Your task to perform on an android device: Do I have any events tomorrow? Image 0: 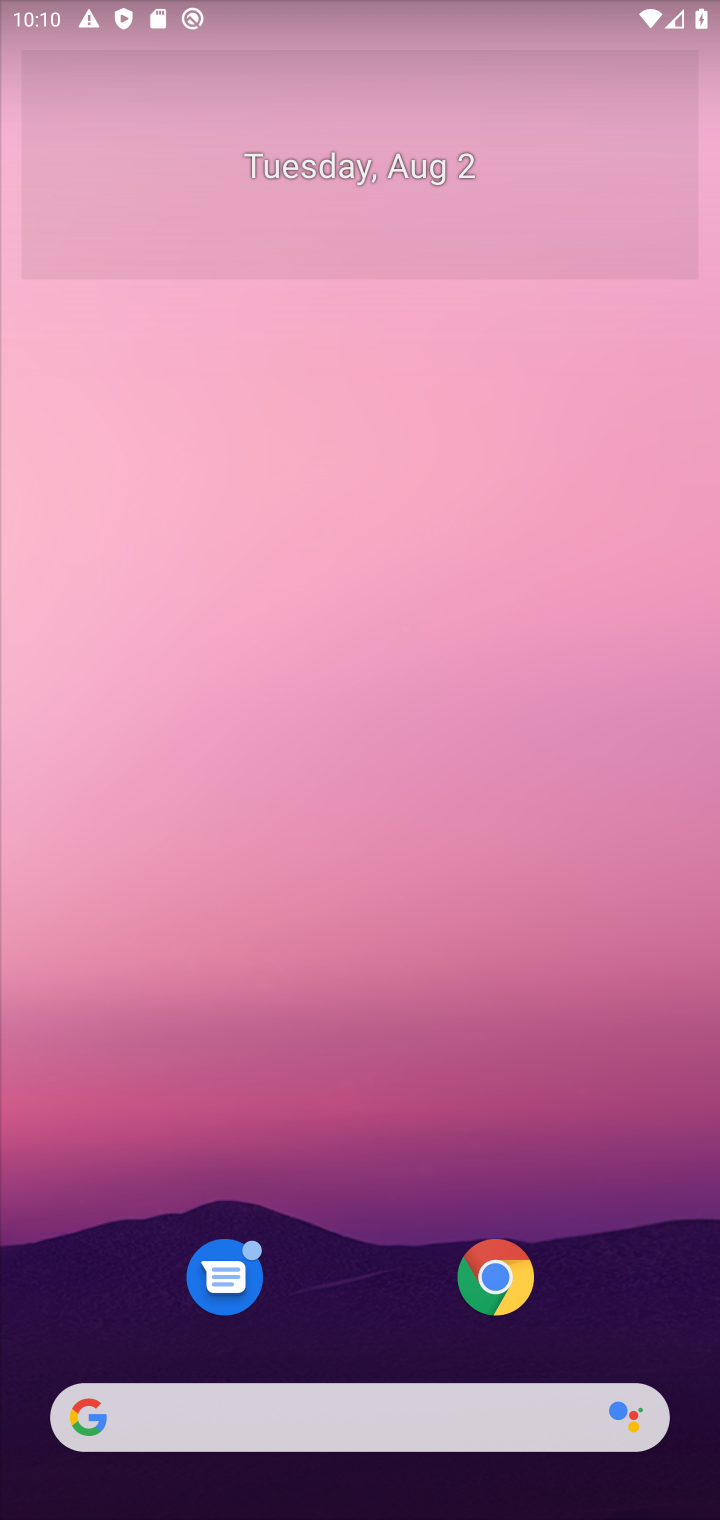
Step 0: press home button
Your task to perform on an android device: Do I have any events tomorrow? Image 1: 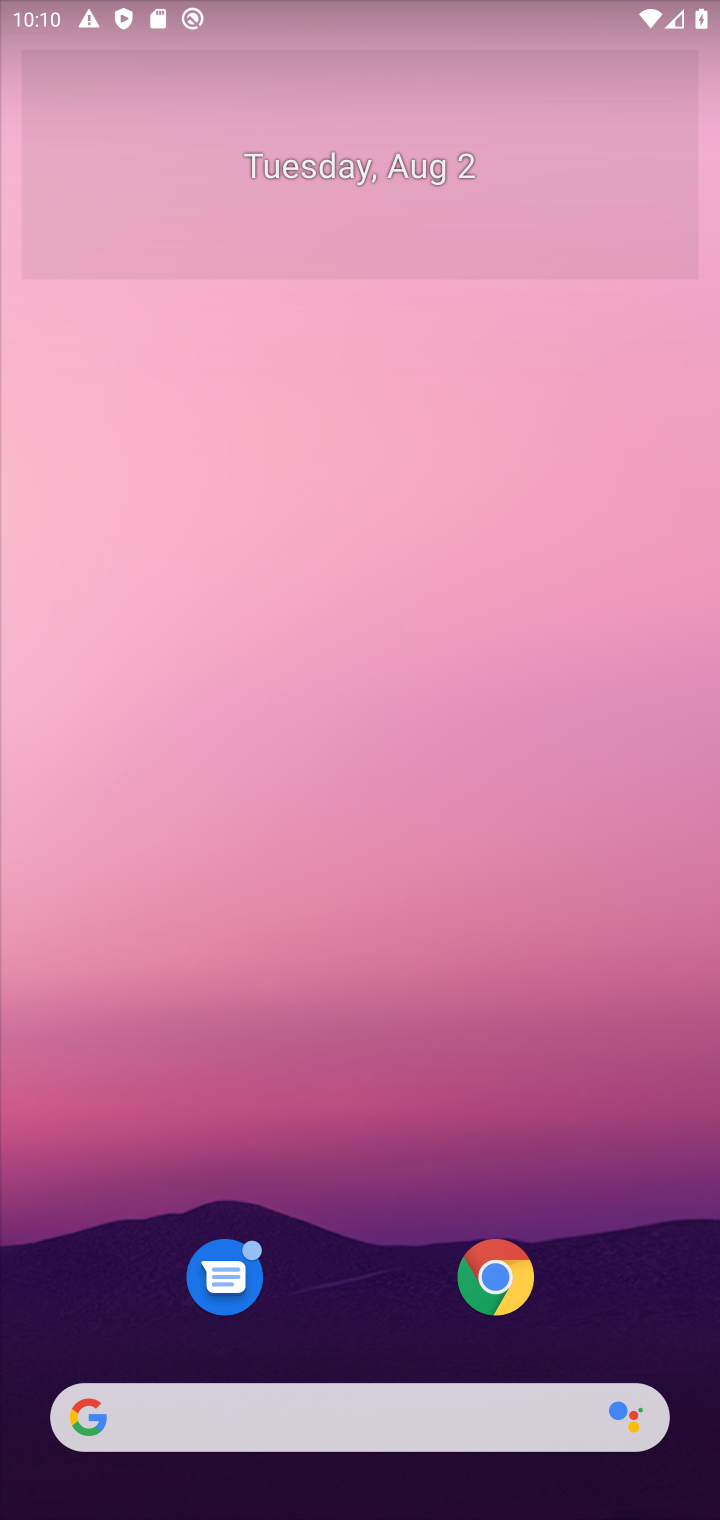
Step 1: drag from (441, 1084) to (506, 567)
Your task to perform on an android device: Do I have any events tomorrow? Image 2: 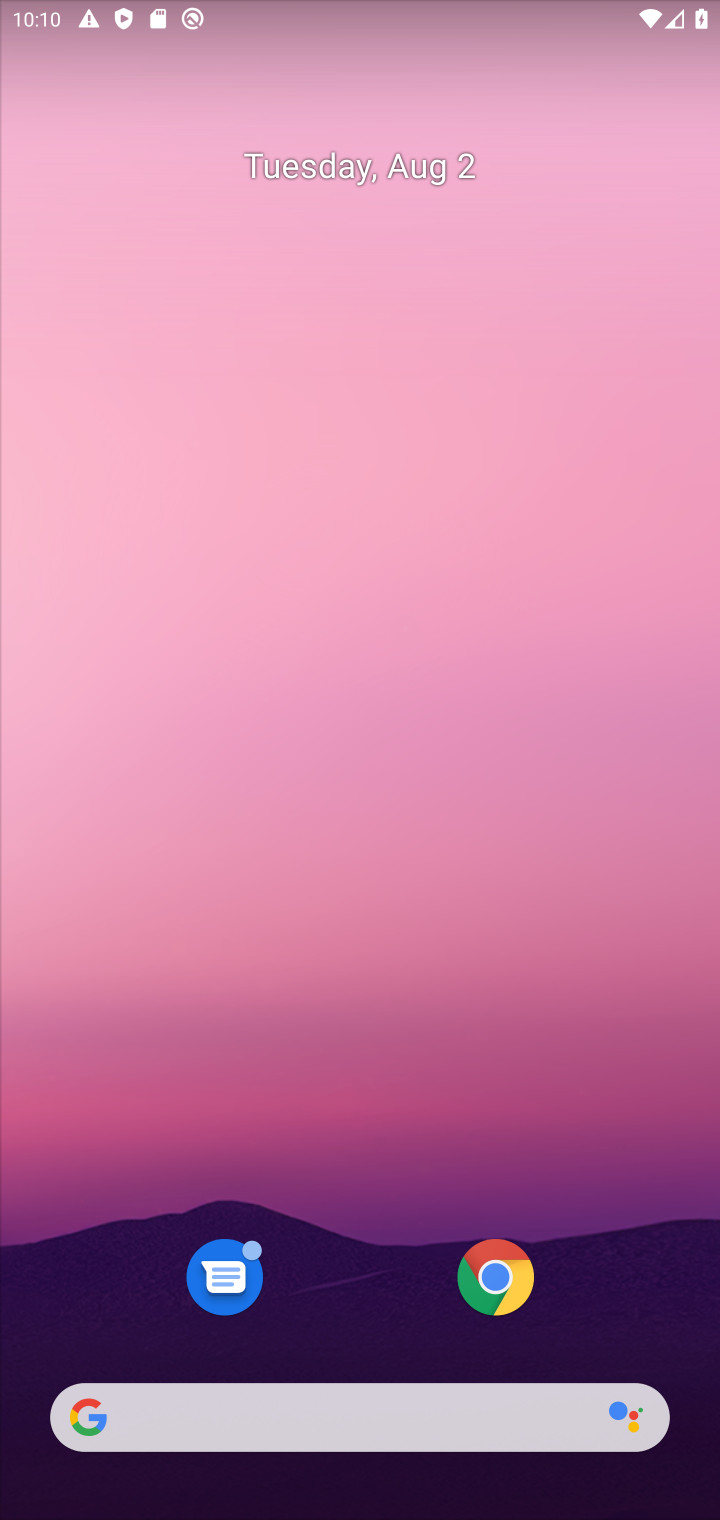
Step 2: drag from (495, 835) to (586, 407)
Your task to perform on an android device: Do I have any events tomorrow? Image 3: 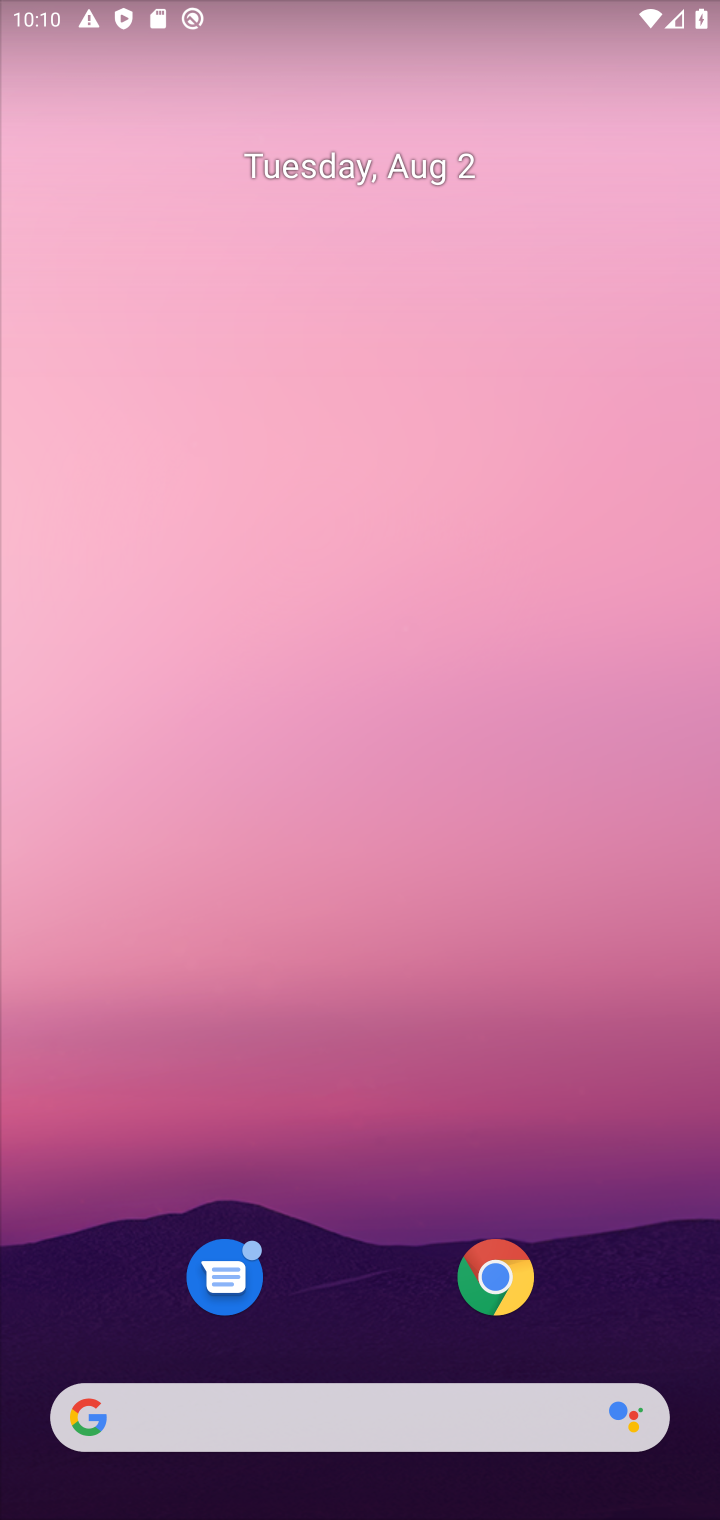
Step 3: drag from (368, 1123) to (370, 188)
Your task to perform on an android device: Do I have any events tomorrow? Image 4: 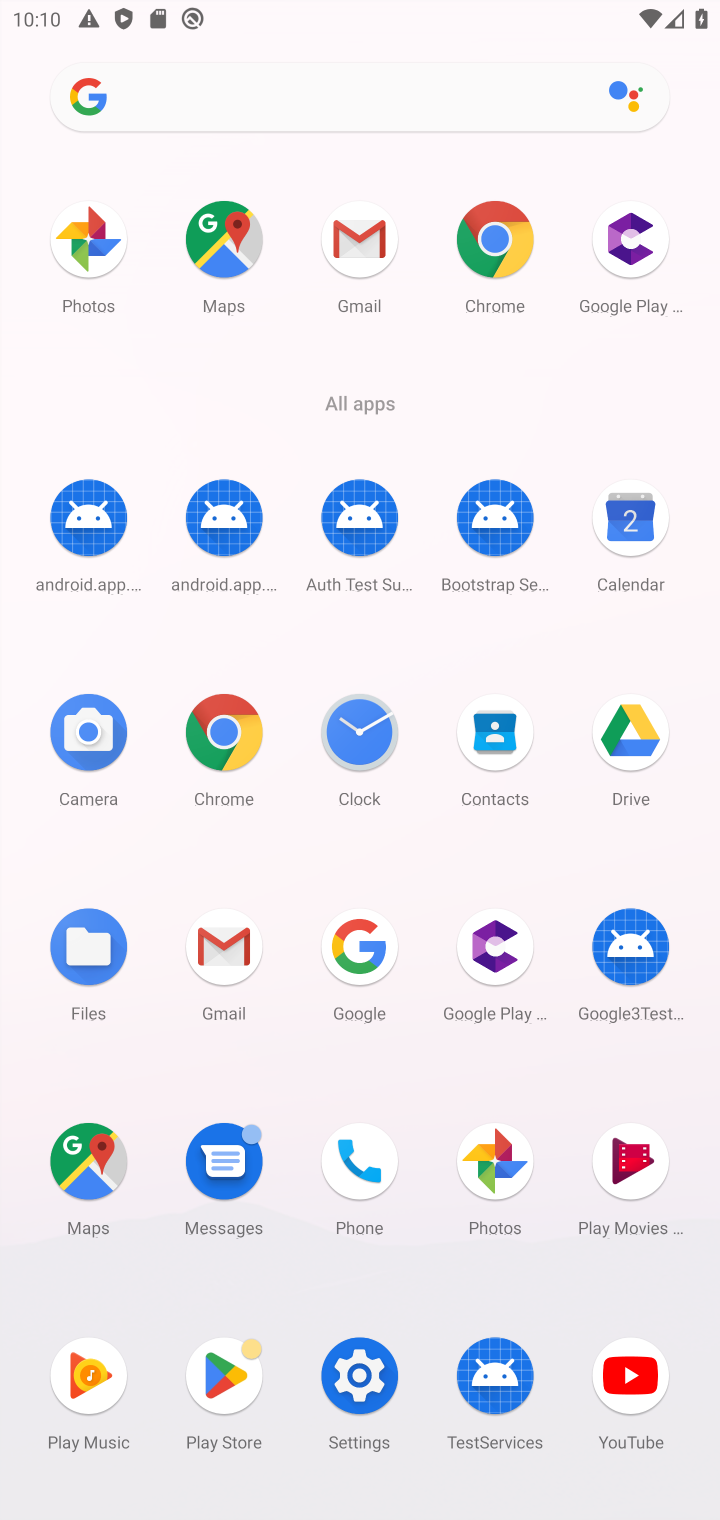
Step 4: click (629, 536)
Your task to perform on an android device: Do I have any events tomorrow? Image 5: 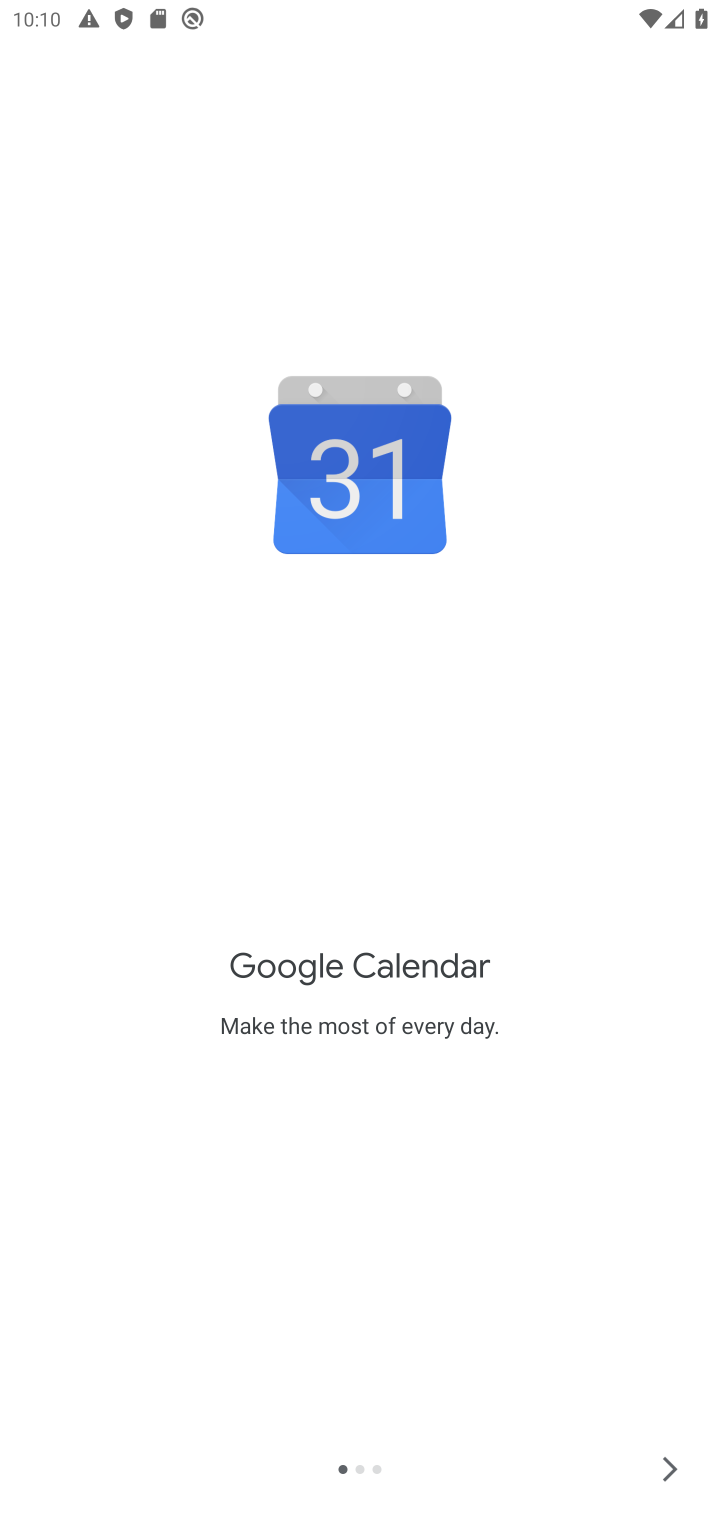
Step 5: click (671, 1469)
Your task to perform on an android device: Do I have any events tomorrow? Image 6: 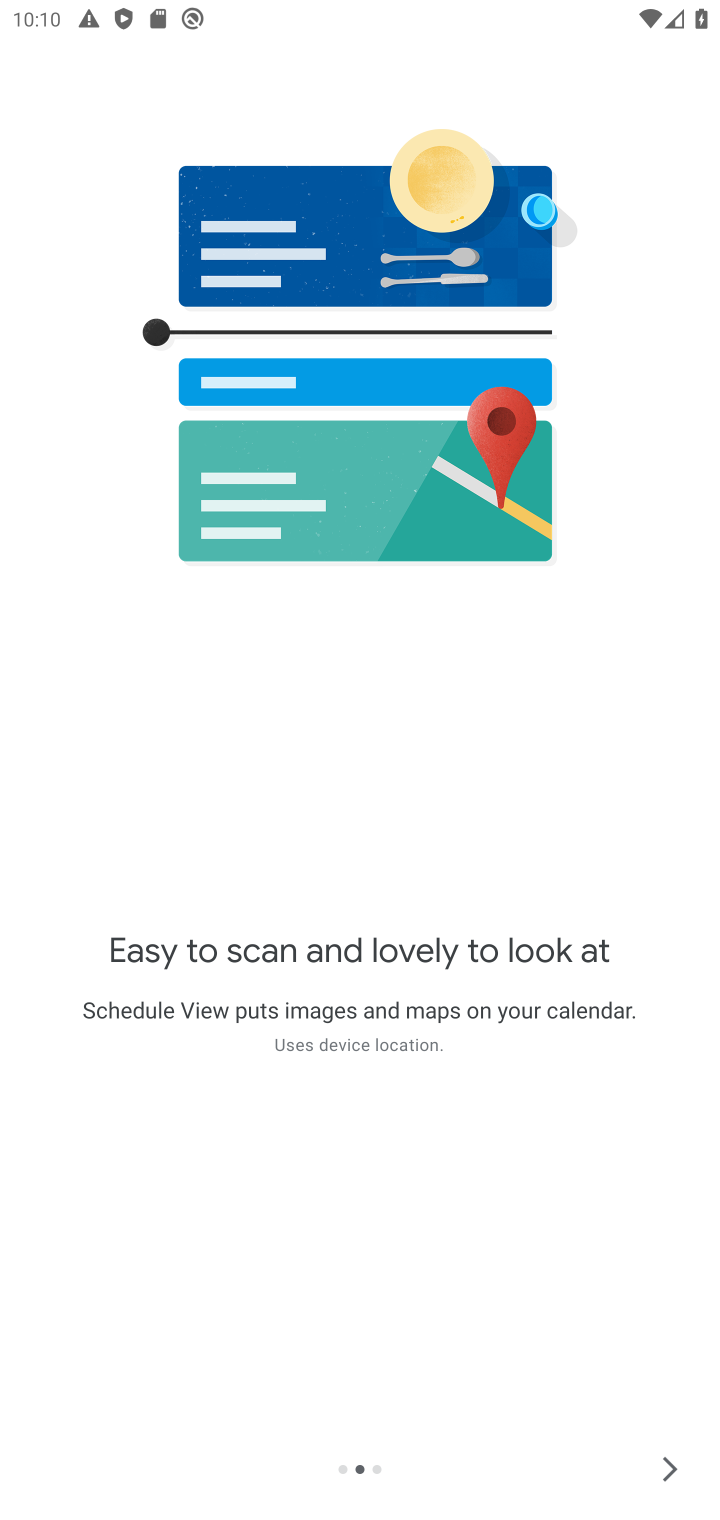
Step 6: click (671, 1469)
Your task to perform on an android device: Do I have any events tomorrow? Image 7: 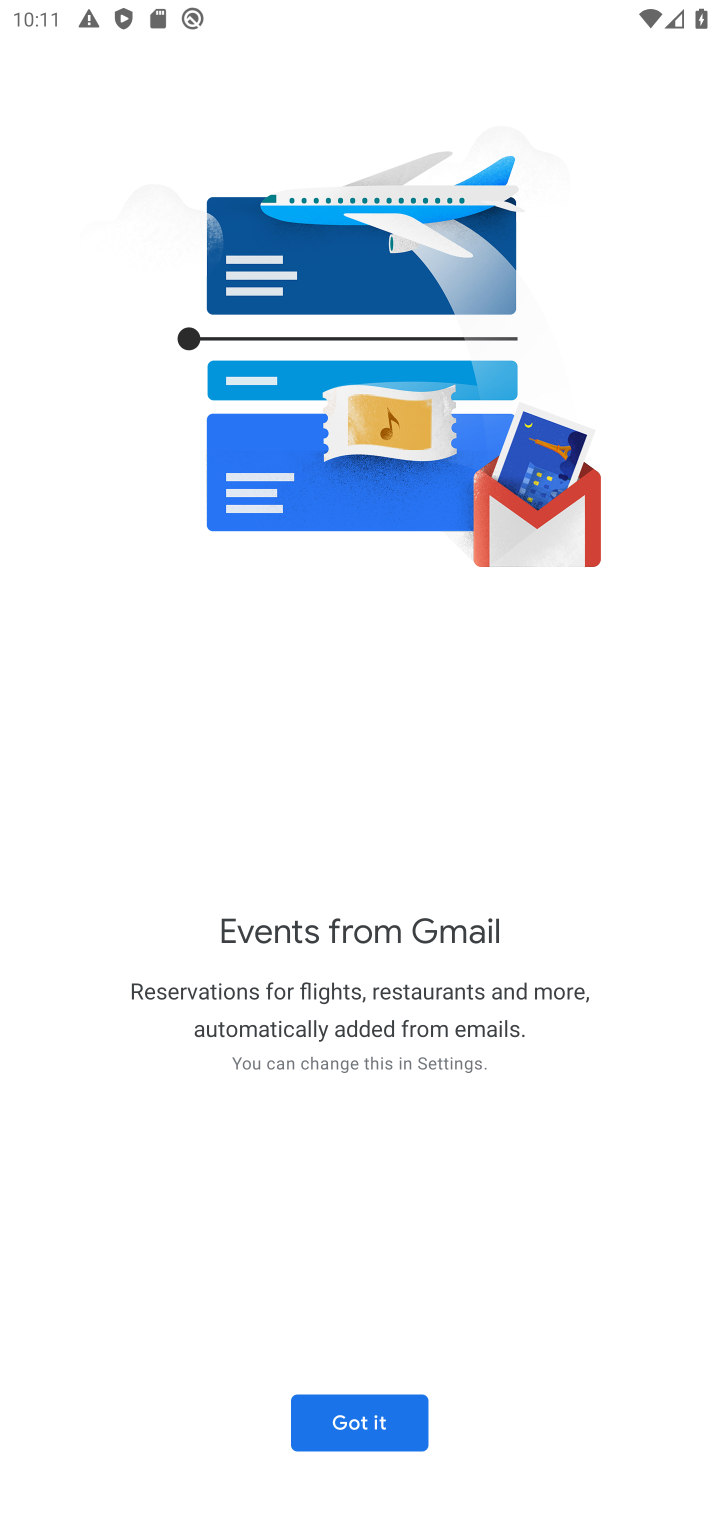
Step 7: click (342, 1427)
Your task to perform on an android device: Do I have any events tomorrow? Image 8: 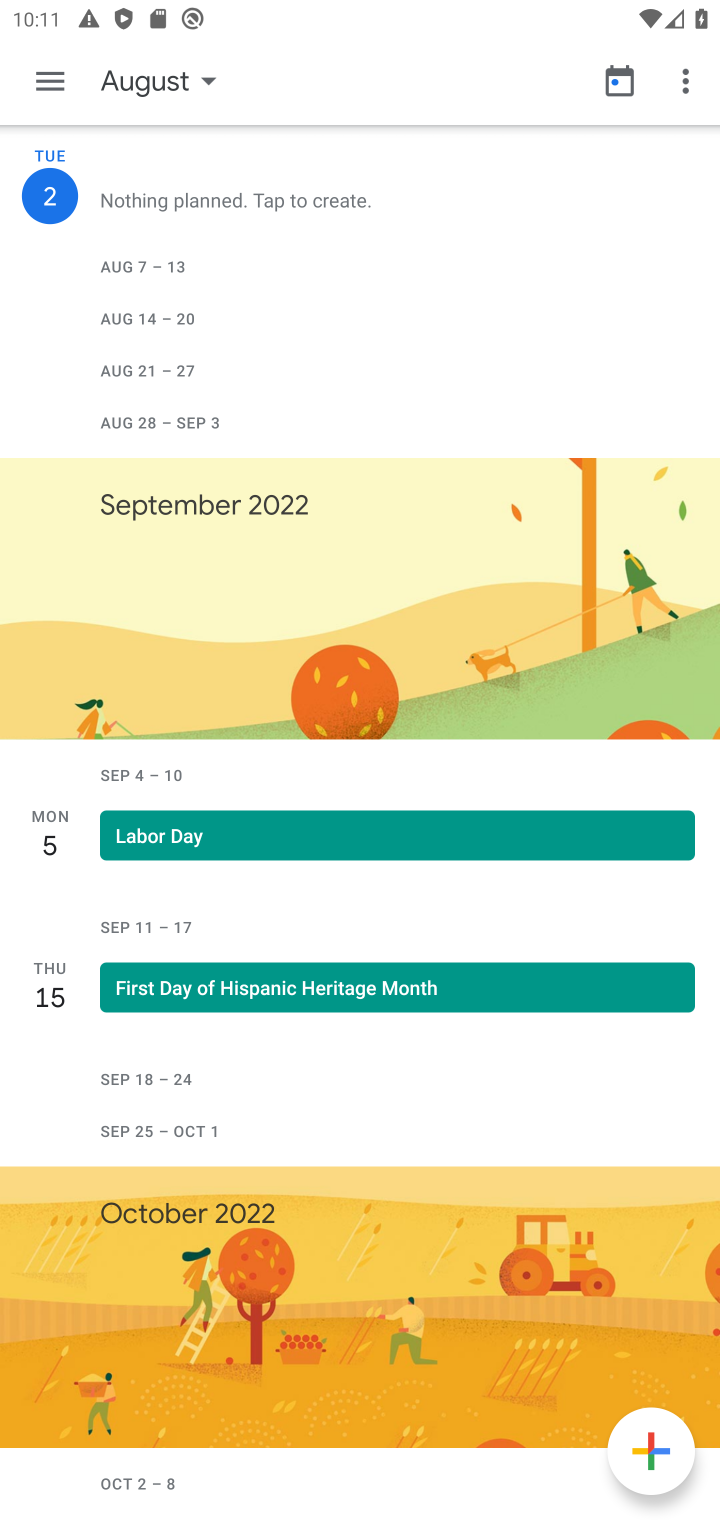
Step 8: click (195, 94)
Your task to perform on an android device: Do I have any events tomorrow? Image 9: 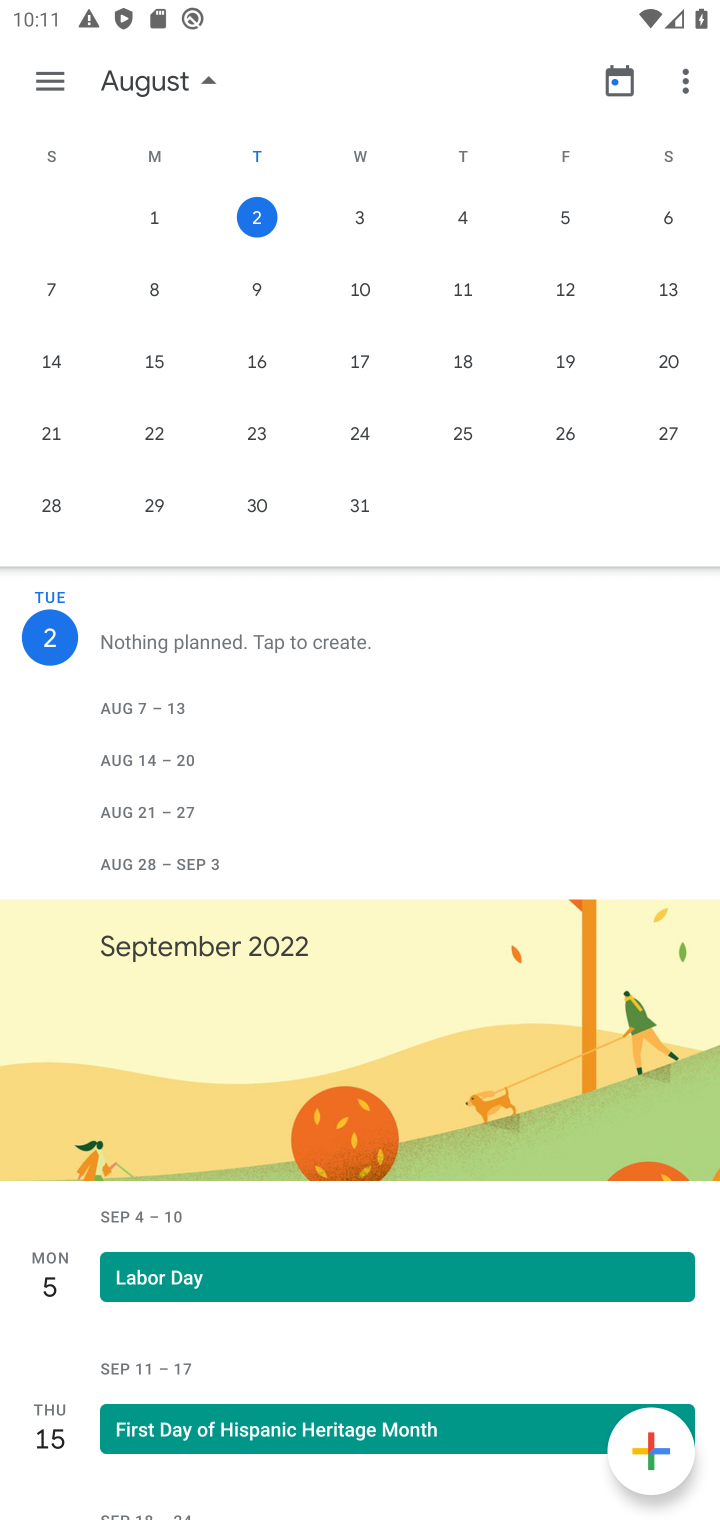
Step 9: click (360, 226)
Your task to perform on an android device: Do I have any events tomorrow? Image 10: 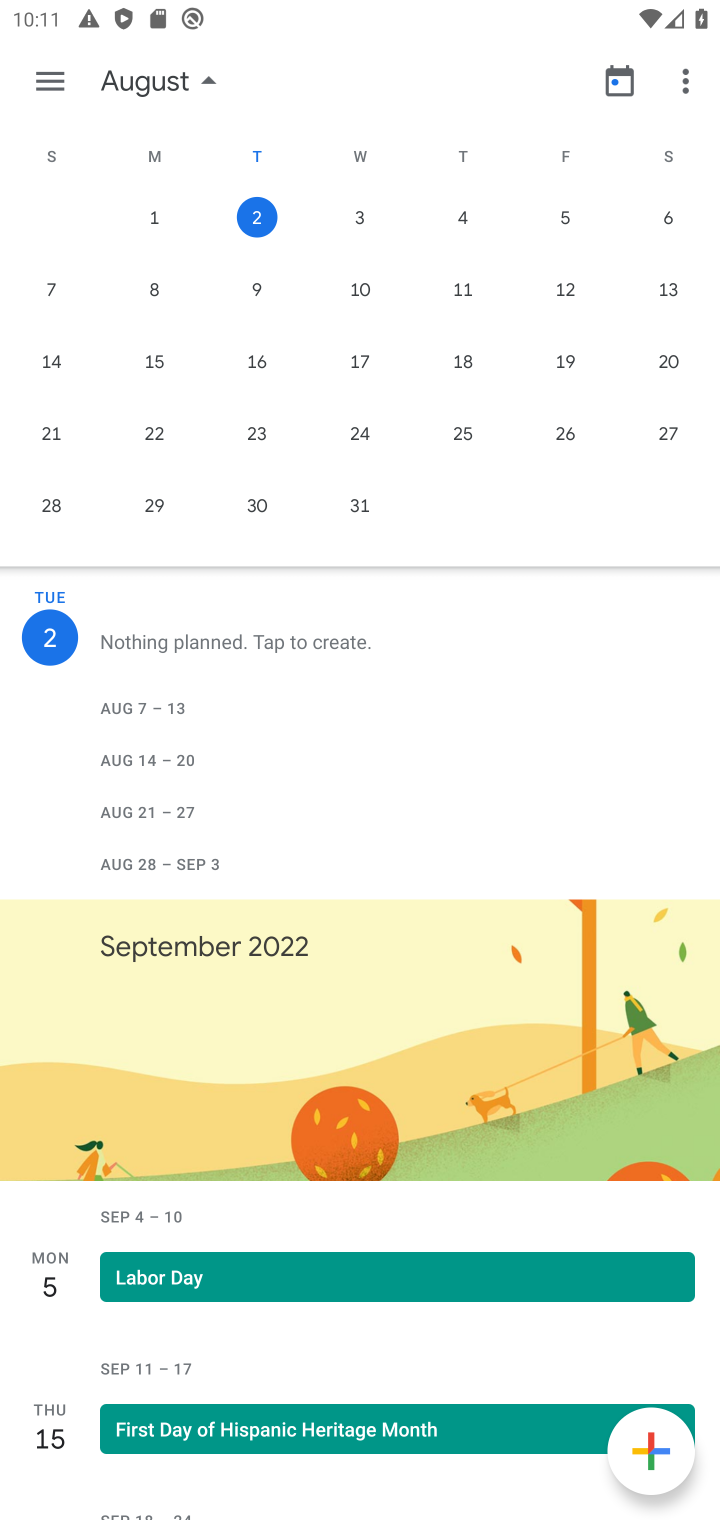
Step 10: click (360, 226)
Your task to perform on an android device: Do I have any events tomorrow? Image 11: 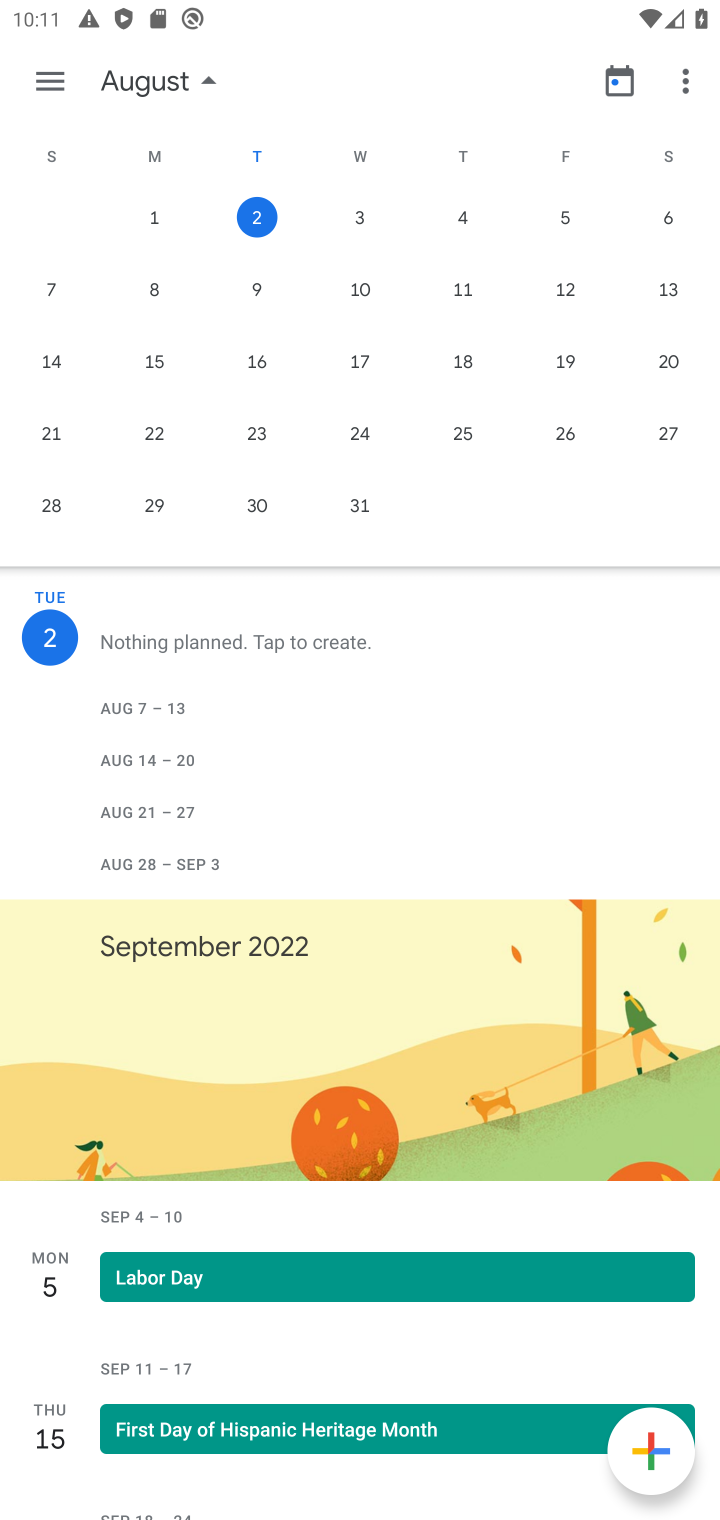
Step 11: click (360, 226)
Your task to perform on an android device: Do I have any events tomorrow? Image 12: 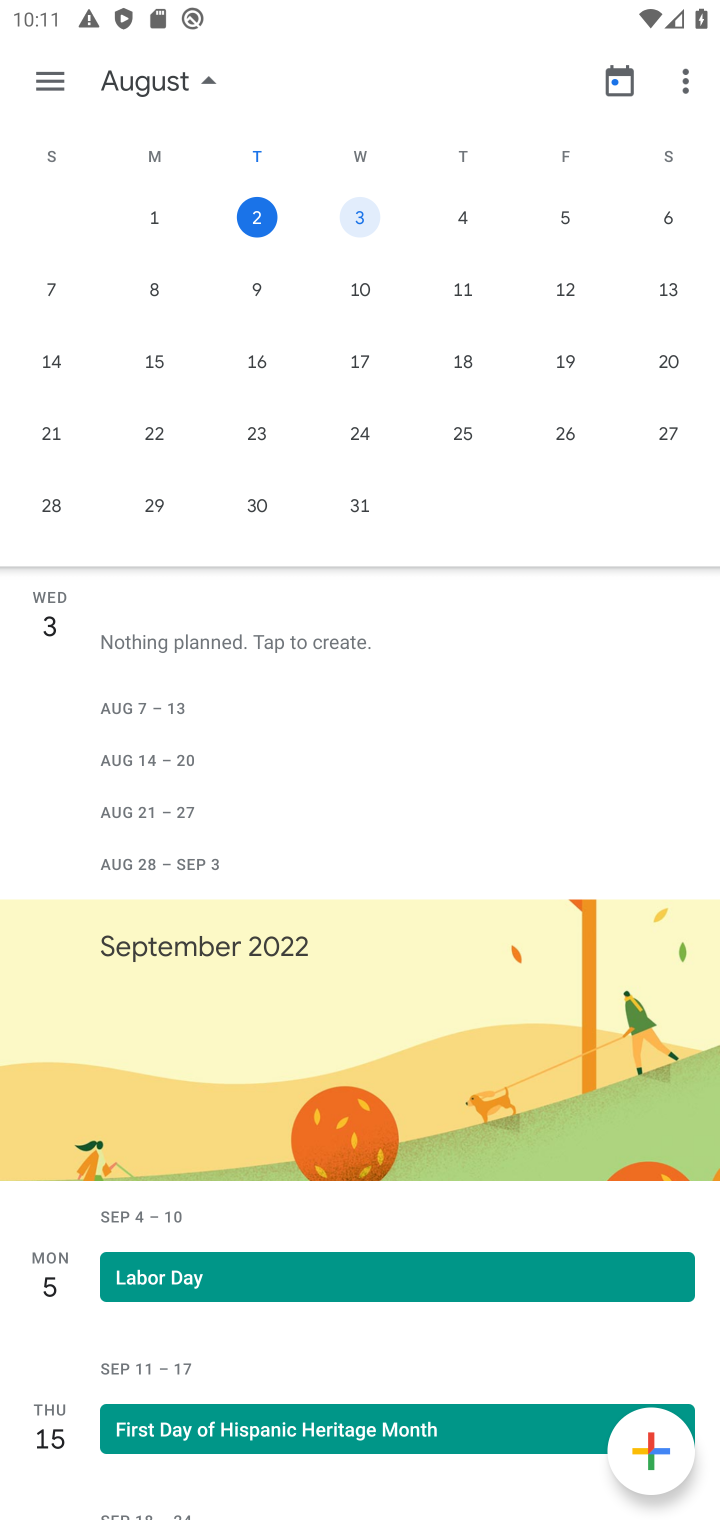
Step 12: task complete